Your task to perform on an android device: empty trash in the gmail app Image 0: 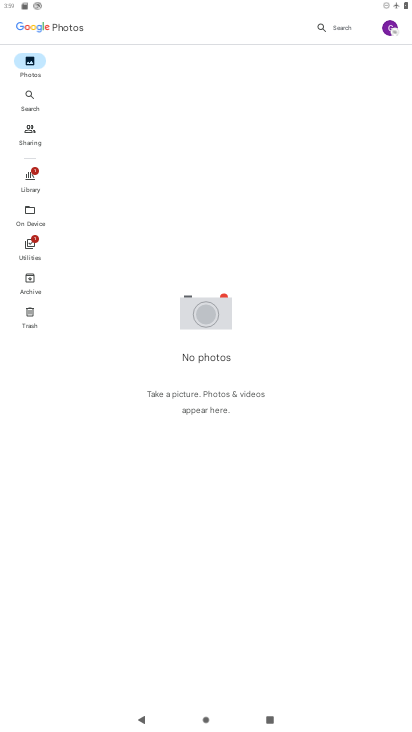
Step 0: press home button
Your task to perform on an android device: empty trash in the gmail app Image 1: 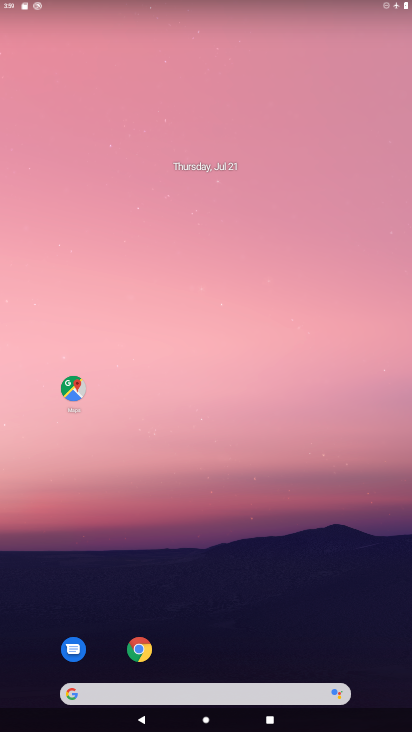
Step 1: drag from (180, 651) to (103, 202)
Your task to perform on an android device: empty trash in the gmail app Image 2: 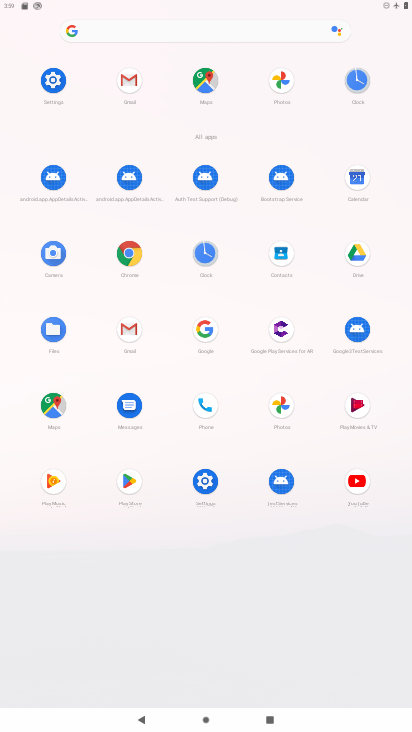
Step 2: click (133, 92)
Your task to perform on an android device: empty trash in the gmail app Image 3: 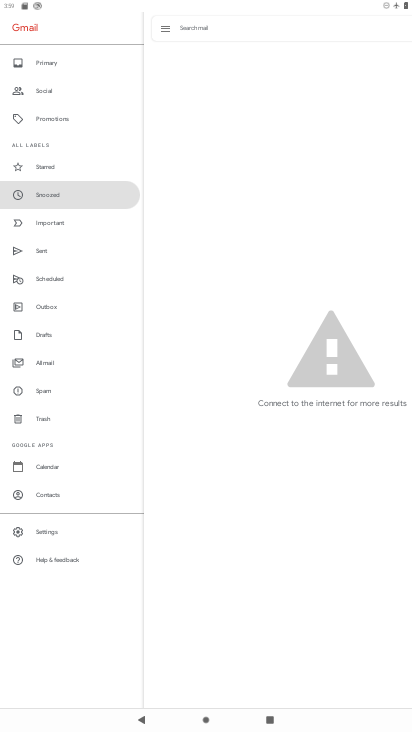
Step 3: click (50, 417)
Your task to perform on an android device: empty trash in the gmail app Image 4: 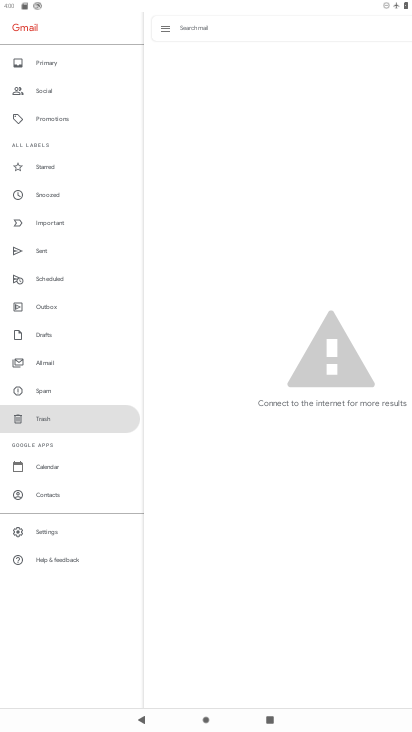
Step 4: task complete